Your task to perform on an android device: find snoozed emails in the gmail app Image 0: 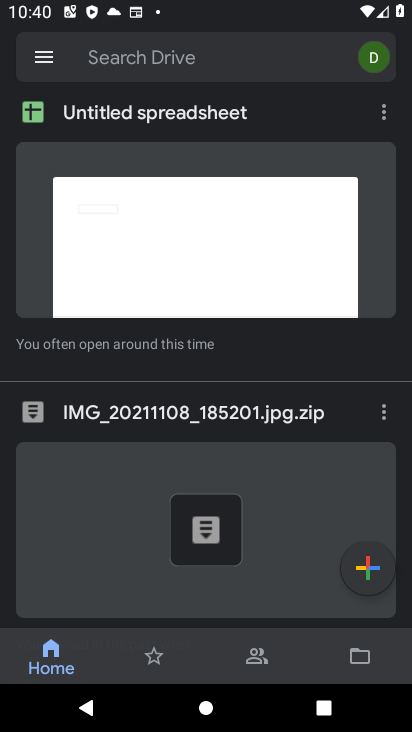
Step 0: press home button
Your task to perform on an android device: find snoozed emails in the gmail app Image 1: 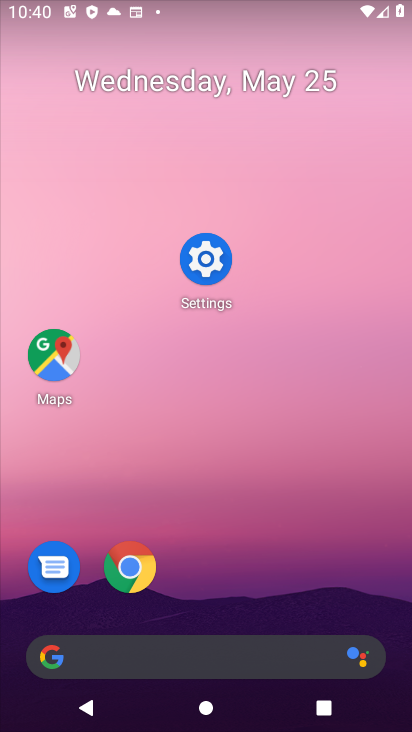
Step 1: drag from (276, 491) to (301, 148)
Your task to perform on an android device: find snoozed emails in the gmail app Image 2: 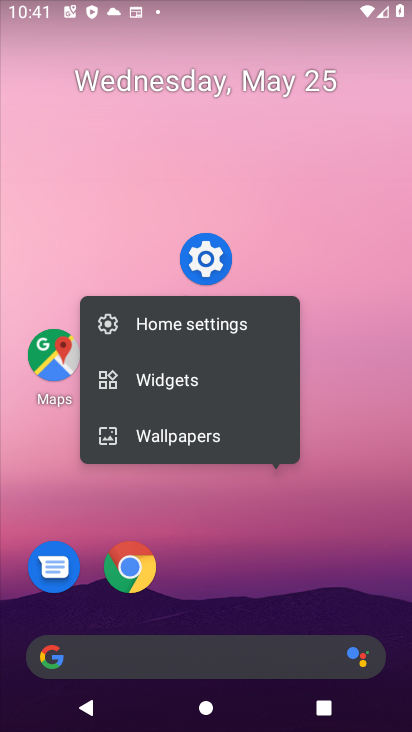
Step 2: click (409, 484)
Your task to perform on an android device: find snoozed emails in the gmail app Image 3: 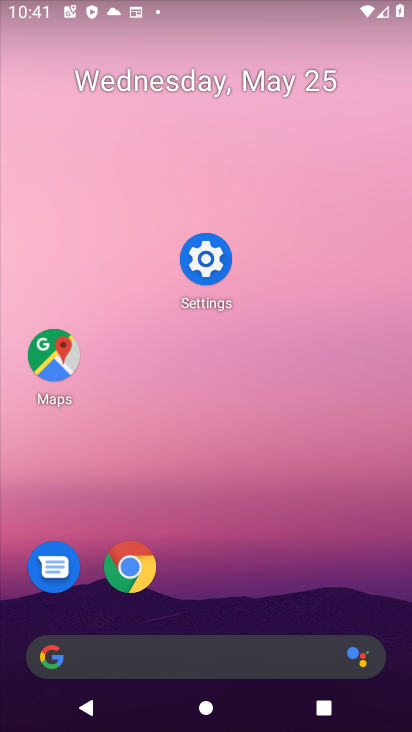
Step 3: drag from (308, 551) to (164, 0)
Your task to perform on an android device: find snoozed emails in the gmail app Image 4: 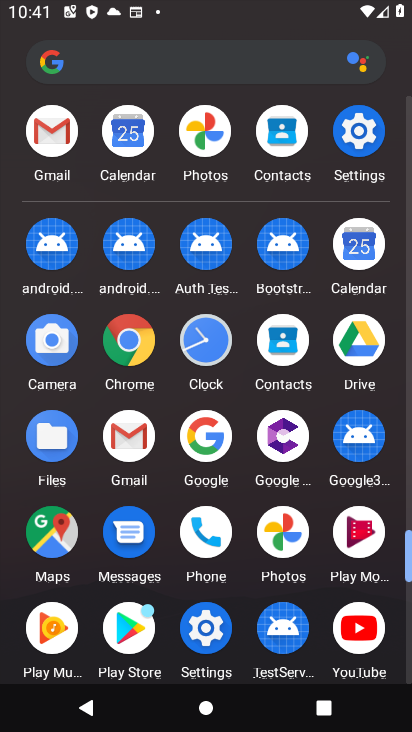
Step 4: click (51, 189)
Your task to perform on an android device: find snoozed emails in the gmail app Image 5: 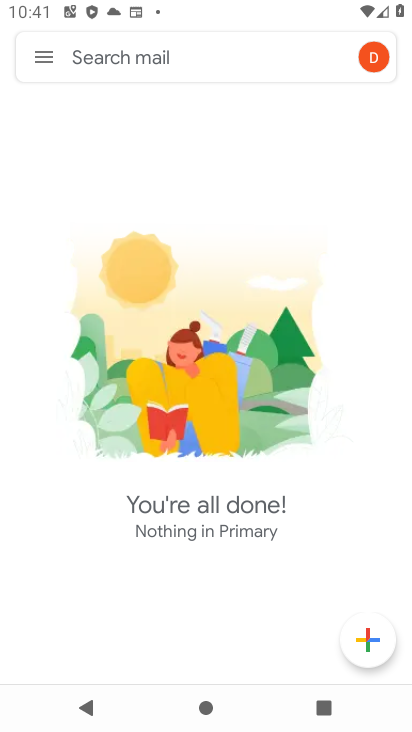
Step 5: click (50, 61)
Your task to perform on an android device: find snoozed emails in the gmail app Image 6: 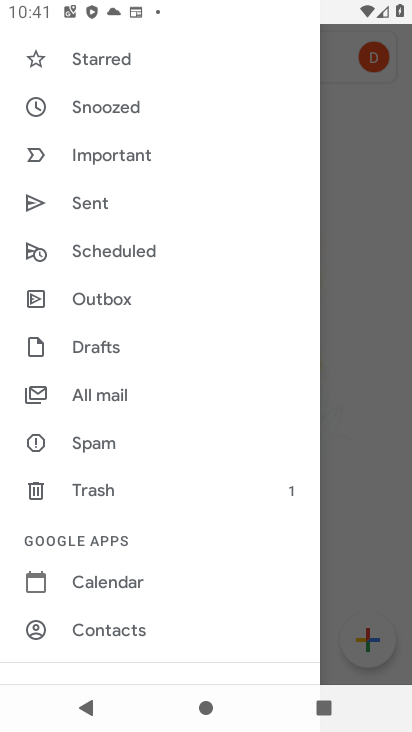
Step 6: drag from (81, 538) to (95, 611)
Your task to perform on an android device: find snoozed emails in the gmail app Image 7: 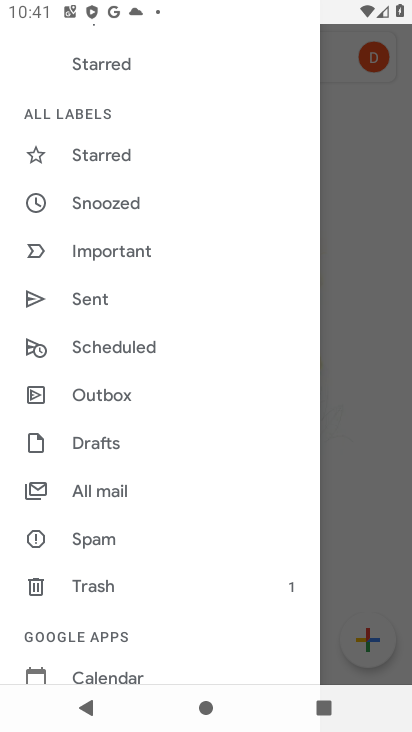
Step 7: click (110, 202)
Your task to perform on an android device: find snoozed emails in the gmail app Image 8: 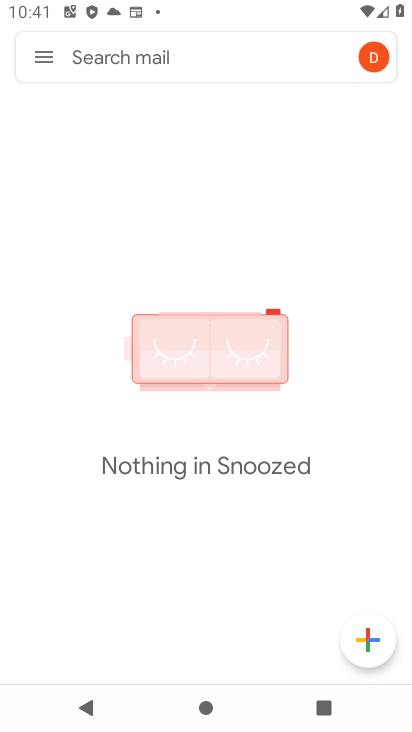
Step 8: click (37, 49)
Your task to perform on an android device: find snoozed emails in the gmail app Image 9: 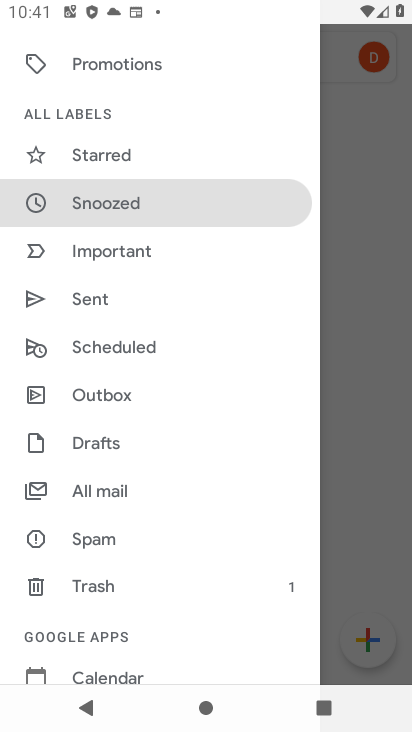
Step 9: task complete